Your task to perform on an android device: toggle data saver in the chrome app Image 0: 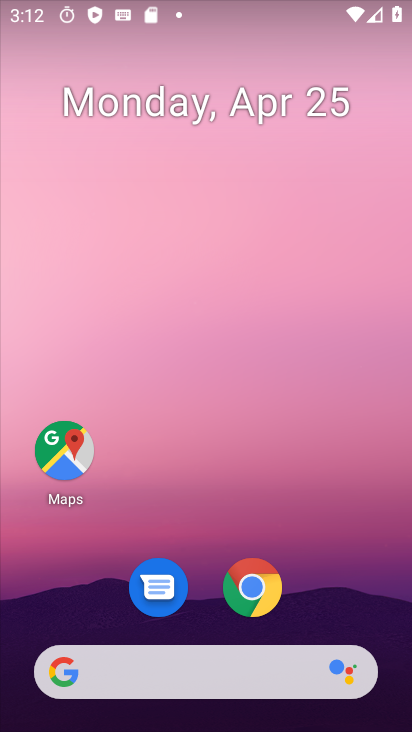
Step 0: drag from (348, 538) to (329, 119)
Your task to perform on an android device: toggle data saver in the chrome app Image 1: 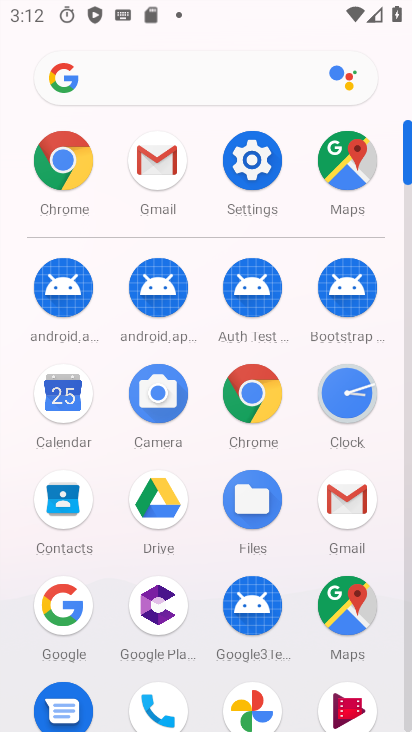
Step 1: click (266, 395)
Your task to perform on an android device: toggle data saver in the chrome app Image 2: 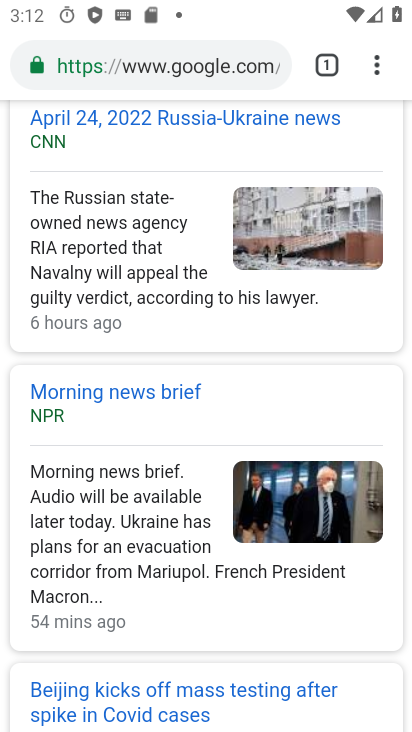
Step 2: drag from (381, 67) to (201, 626)
Your task to perform on an android device: toggle data saver in the chrome app Image 3: 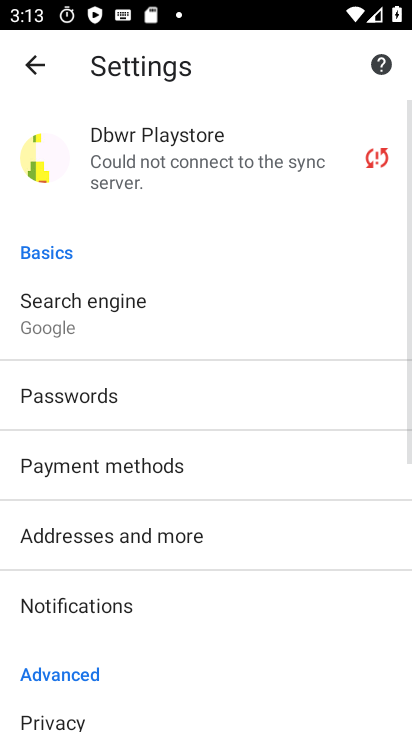
Step 3: drag from (207, 572) to (312, 258)
Your task to perform on an android device: toggle data saver in the chrome app Image 4: 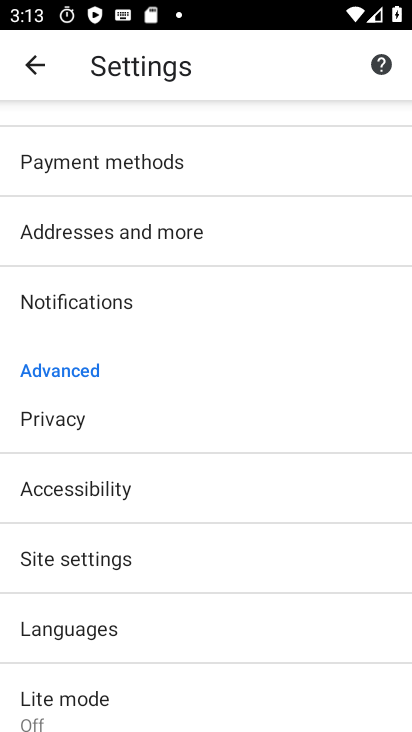
Step 4: drag from (177, 566) to (236, 325)
Your task to perform on an android device: toggle data saver in the chrome app Image 5: 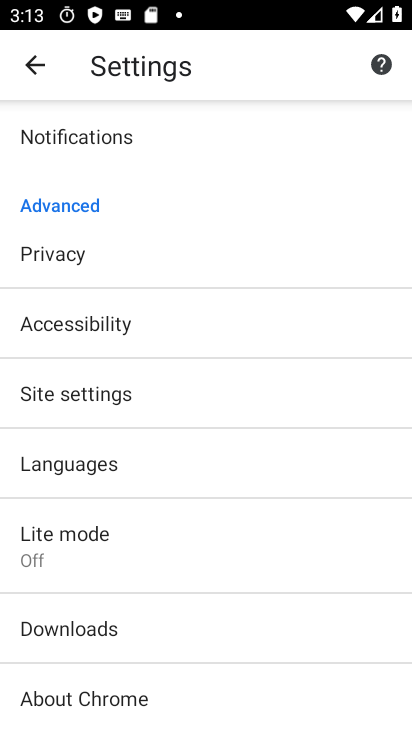
Step 5: click (106, 522)
Your task to perform on an android device: toggle data saver in the chrome app Image 6: 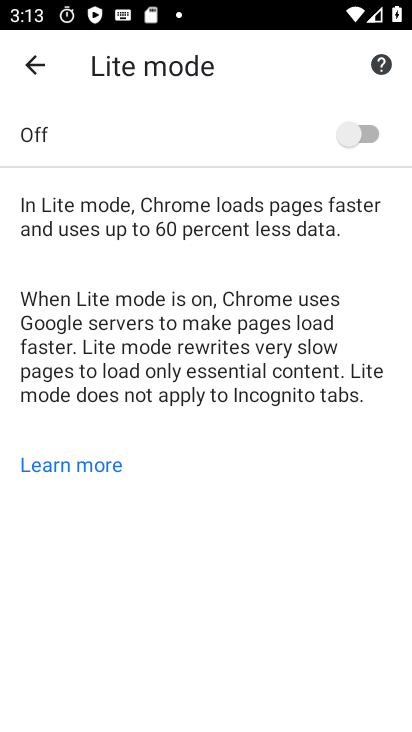
Step 6: click (359, 141)
Your task to perform on an android device: toggle data saver in the chrome app Image 7: 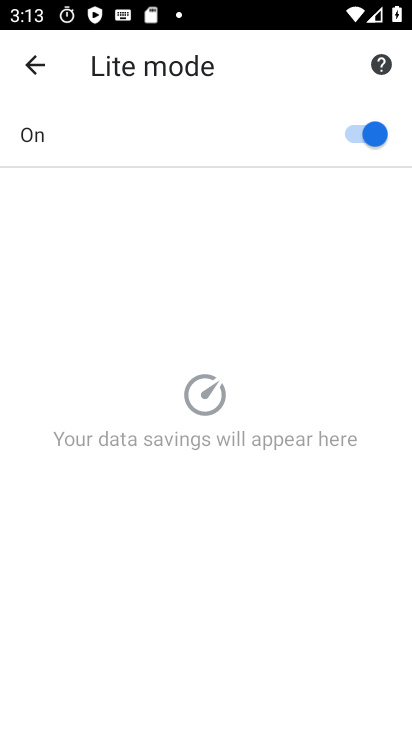
Step 7: task complete